Your task to perform on an android device: Open settings on Google Maps Image 0: 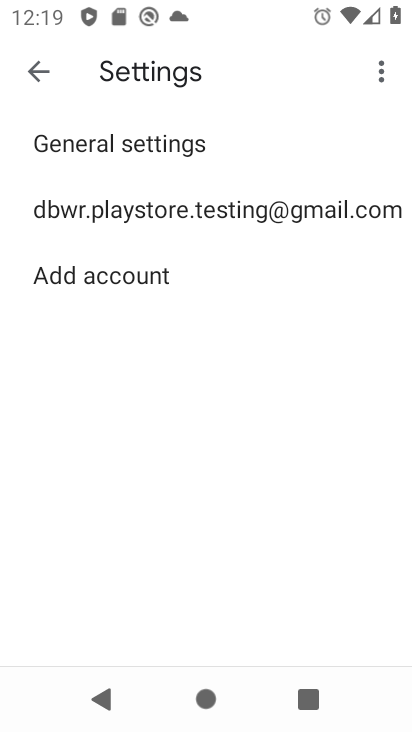
Step 0: drag from (365, 558) to (360, 277)
Your task to perform on an android device: Open settings on Google Maps Image 1: 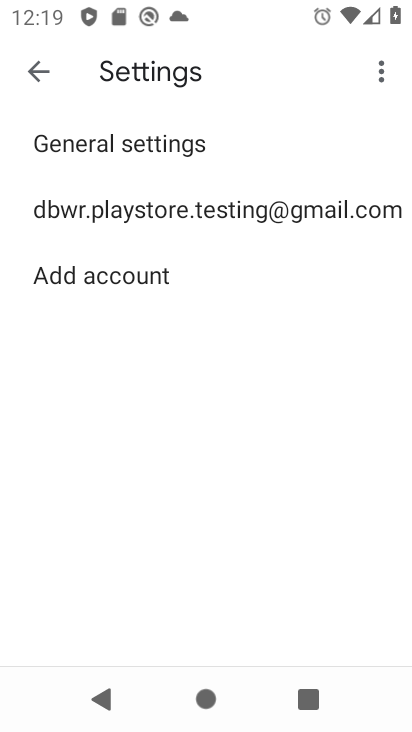
Step 1: press home button
Your task to perform on an android device: Open settings on Google Maps Image 2: 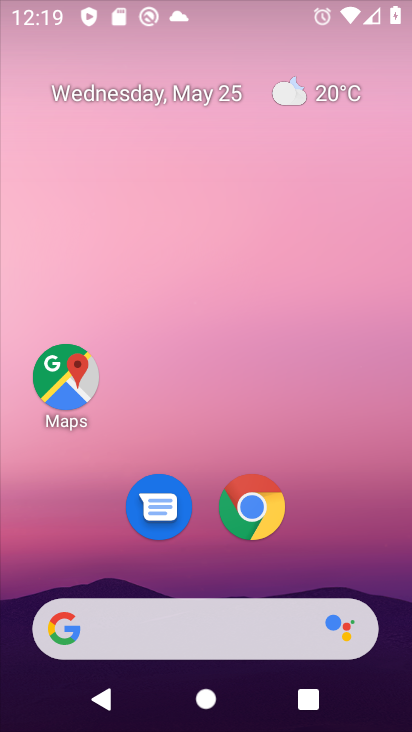
Step 2: drag from (343, 600) to (342, 173)
Your task to perform on an android device: Open settings on Google Maps Image 3: 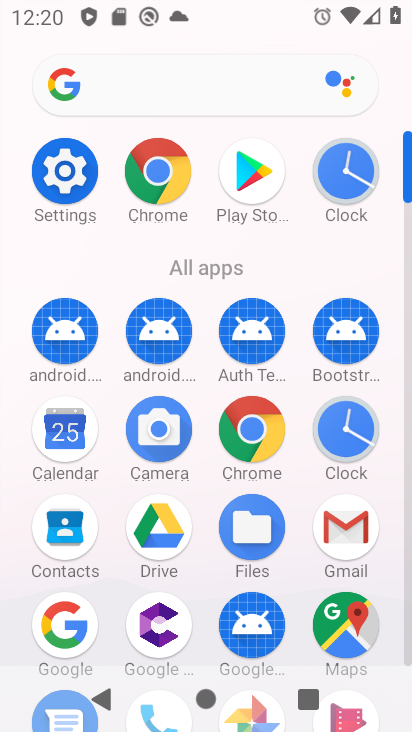
Step 3: click (346, 620)
Your task to perform on an android device: Open settings on Google Maps Image 4: 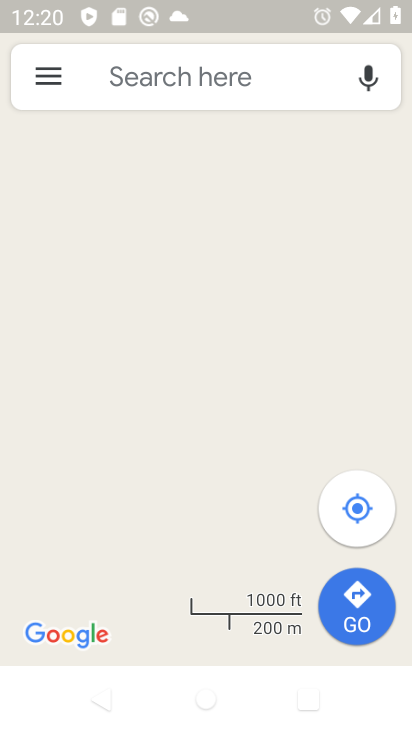
Step 4: click (54, 87)
Your task to perform on an android device: Open settings on Google Maps Image 5: 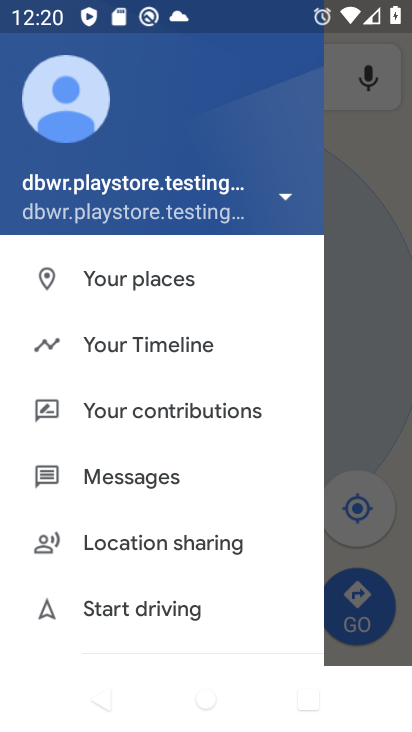
Step 5: click (155, 345)
Your task to perform on an android device: Open settings on Google Maps Image 6: 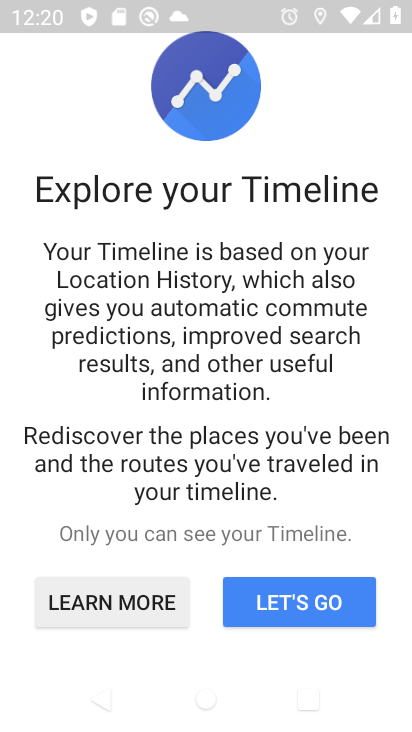
Step 6: click (330, 627)
Your task to perform on an android device: Open settings on Google Maps Image 7: 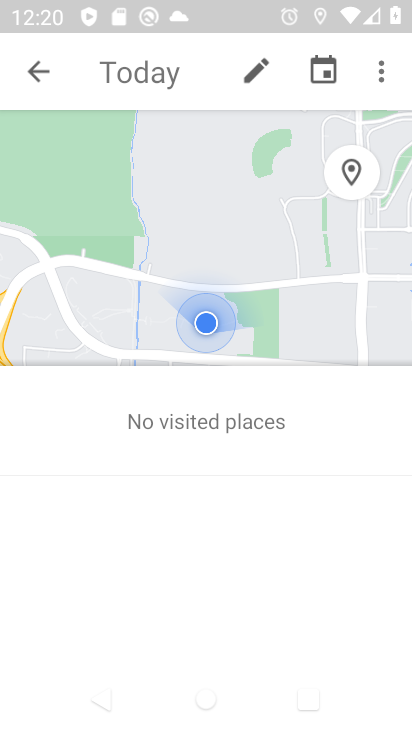
Step 7: task complete